Your task to perform on an android device: Go to Google maps Image 0: 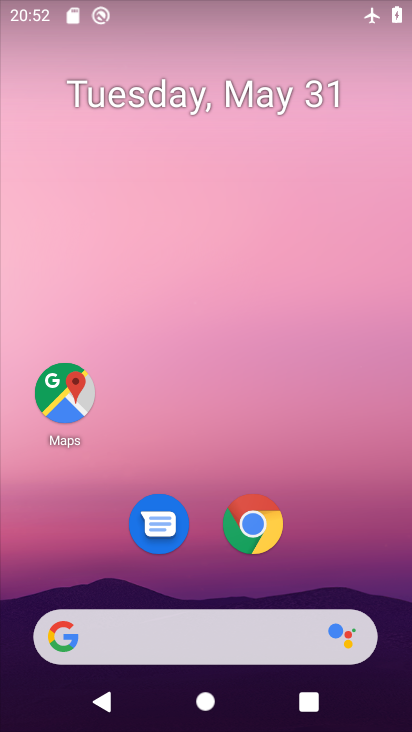
Step 0: click (70, 383)
Your task to perform on an android device: Go to Google maps Image 1: 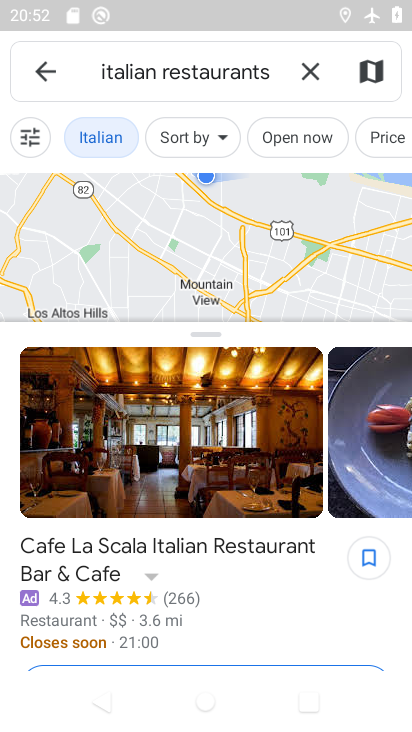
Step 1: click (313, 65)
Your task to perform on an android device: Go to Google maps Image 2: 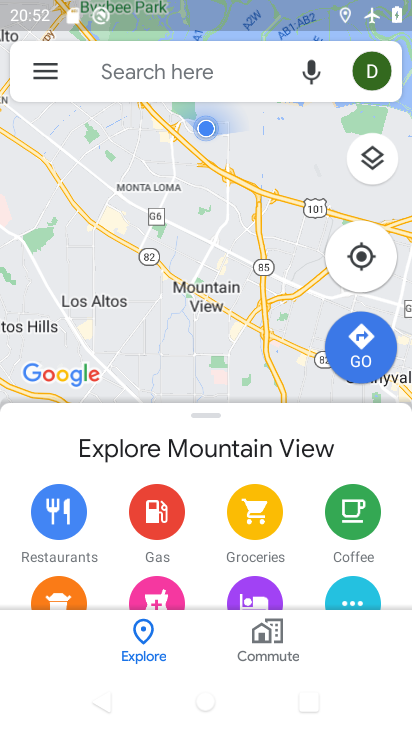
Step 2: task complete